Your task to perform on an android device: turn pop-ups off in chrome Image 0: 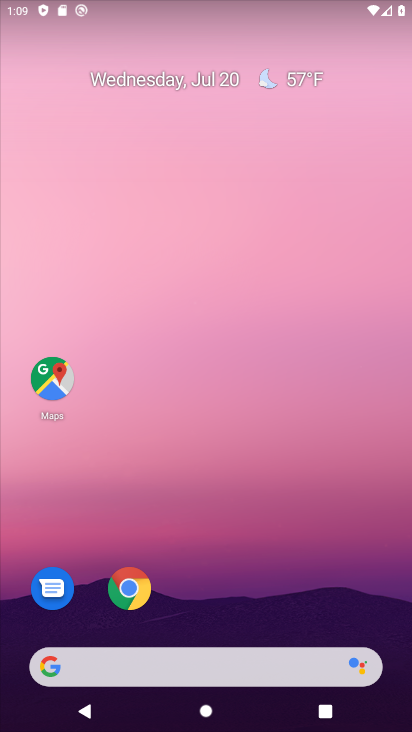
Step 0: drag from (69, 528) to (309, 117)
Your task to perform on an android device: turn pop-ups off in chrome Image 1: 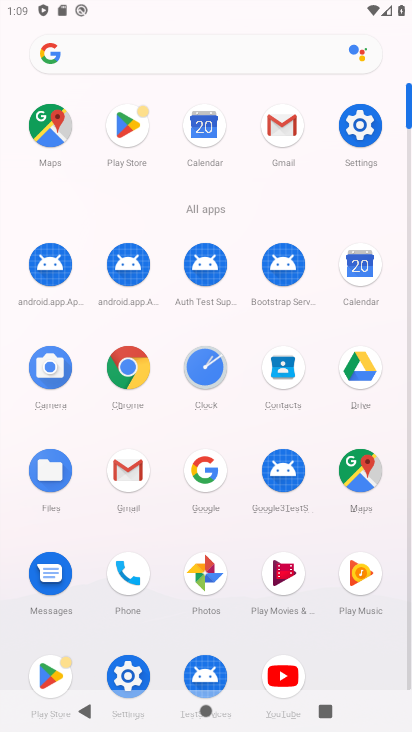
Step 1: click (126, 365)
Your task to perform on an android device: turn pop-ups off in chrome Image 2: 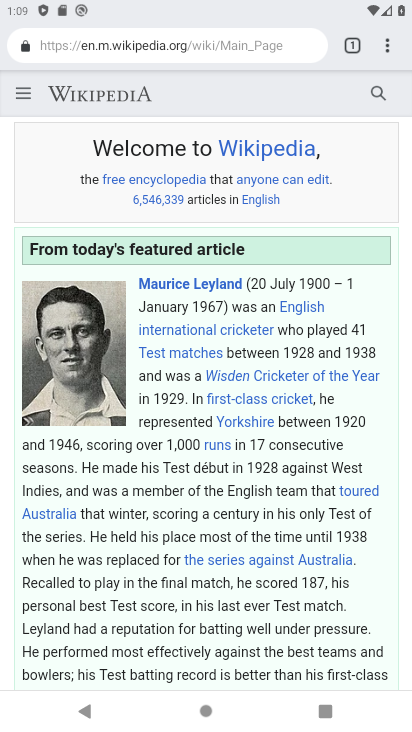
Step 2: click (386, 48)
Your task to perform on an android device: turn pop-ups off in chrome Image 3: 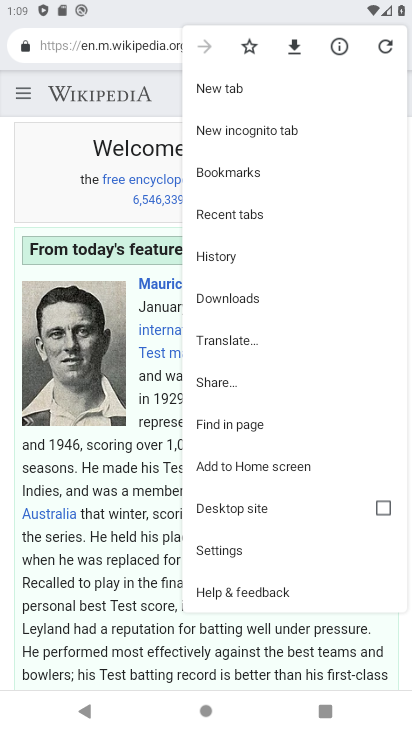
Step 3: click (215, 549)
Your task to perform on an android device: turn pop-ups off in chrome Image 4: 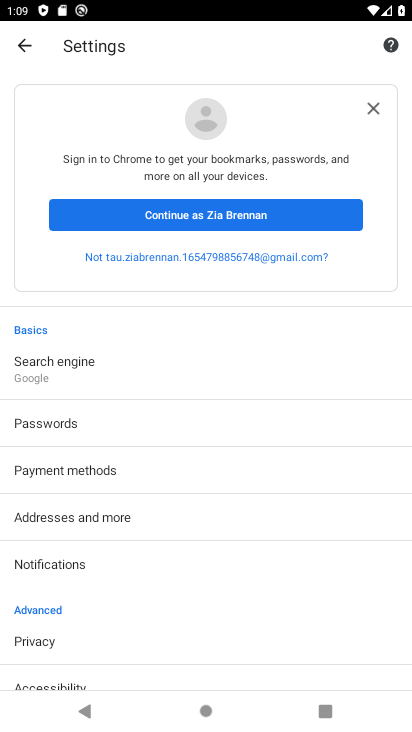
Step 4: drag from (13, 516) to (156, 263)
Your task to perform on an android device: turn pop-ups off in chrome Image 5: 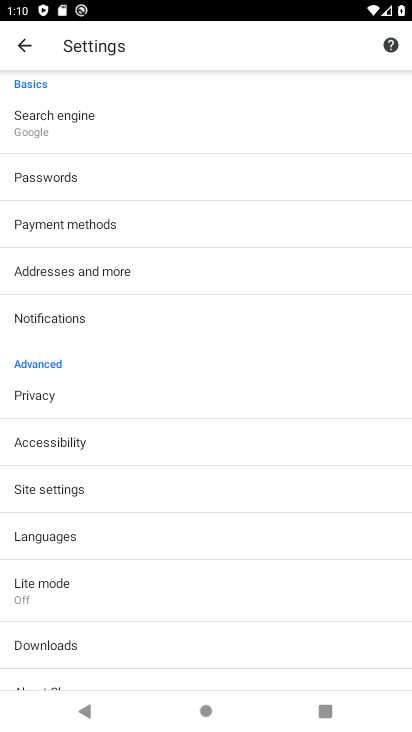
Step 5: click (78, 494)
Your task to perform on an android device: turn pop-ups off in chrome Image 6: 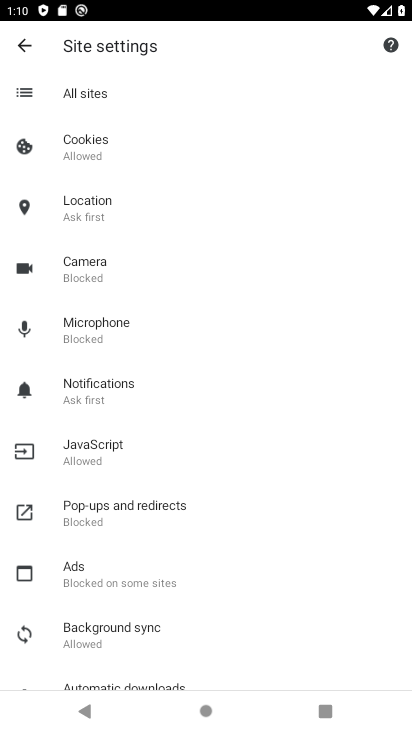
Step 6: click (110, 516)
Your task to perform on an android device: turn pop-ups off in chrome Image 7: 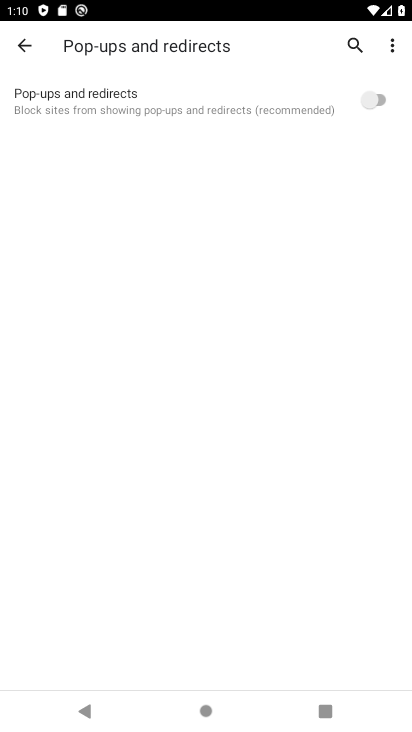
Step 7: task complete